Your task to perform on an android device: toggle javascript in the chrome app Image 0: 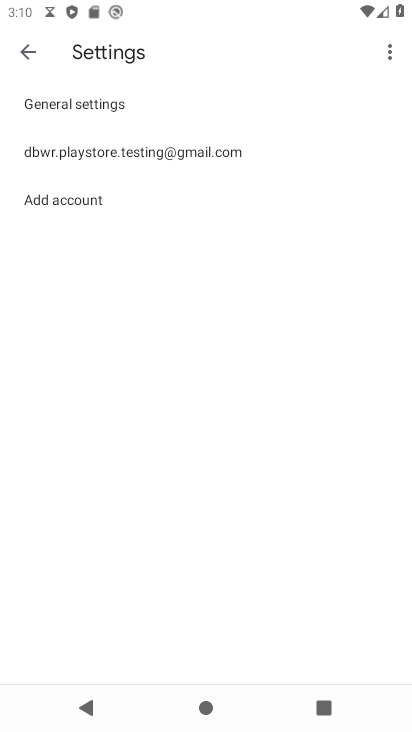
Step 0: press back button
Your task to perform on an android device: toggle javascript in the chrome app Image 1: 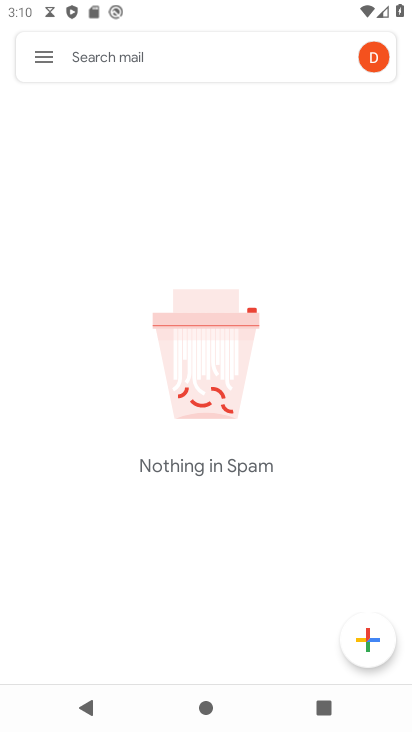
Step 1: press back button
Your task to perform on an android device: toggle javascript in the chrome app Image 2: 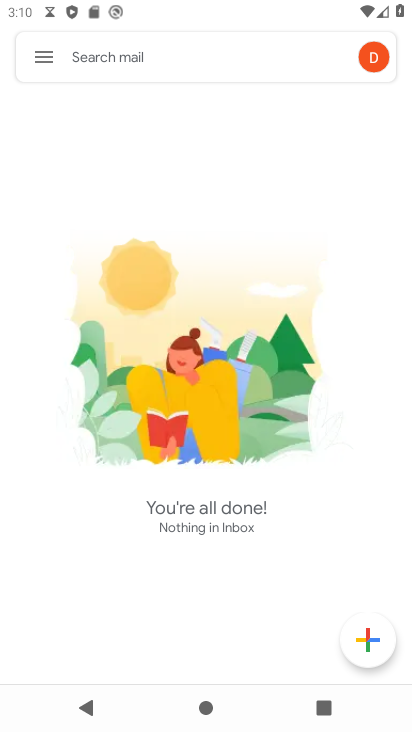
Step 2: press back button
Your task to perform on an android device: toggle javascript in the chrome app Image 3: 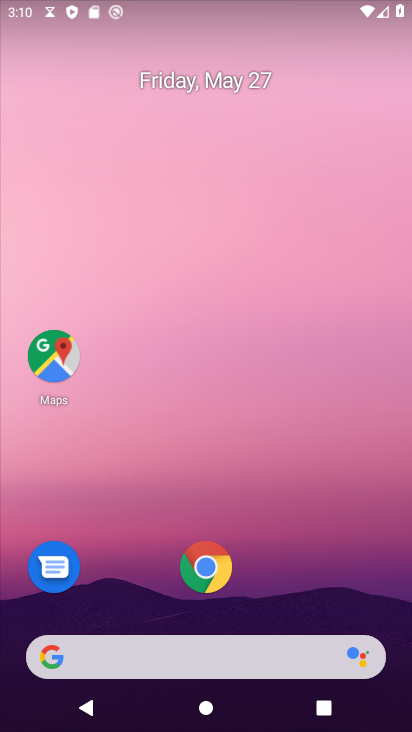
Step 3: click (206, 569)
Your task to perform on an android device: toggle javascript in the chrome app Image 4: 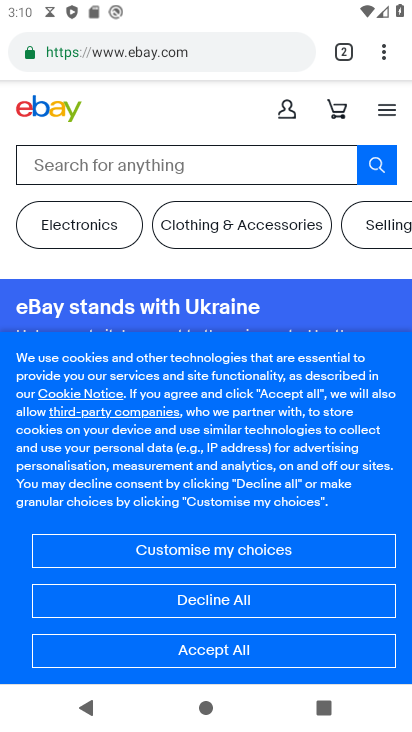
Step 4: drag from (379, 51) to (194, 618)
Your task to perform on an android device: toggle javascript in the chrome app Image 5: 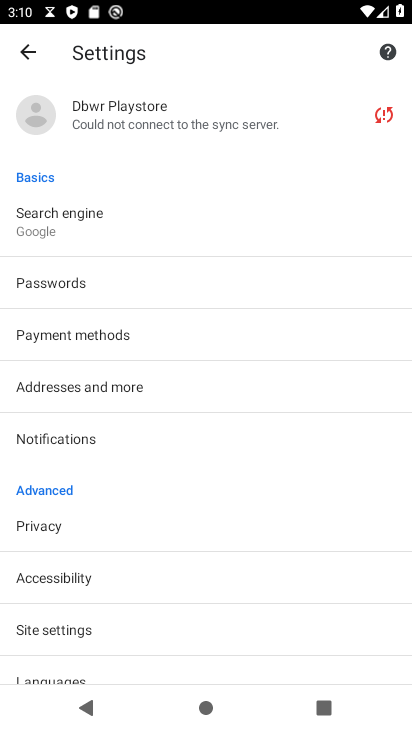
Step 5: click (96, 631)
Your task to perform on an android device: toggle javascript in the chrome app Image 6: 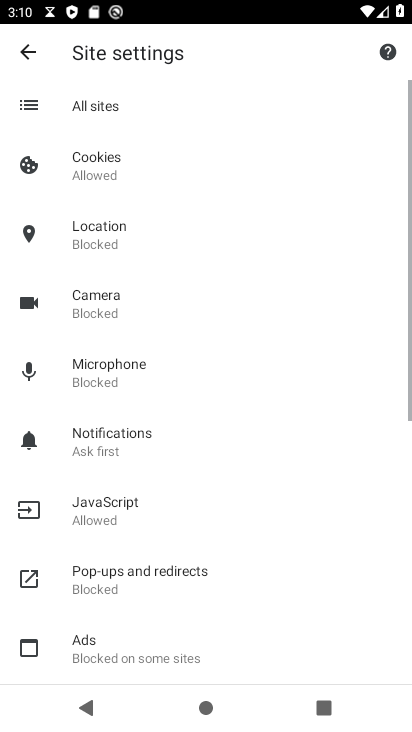
Step 6: click (116, 502)
Your task to perform on an android device: toggle javascript in the chrome app Image 7: 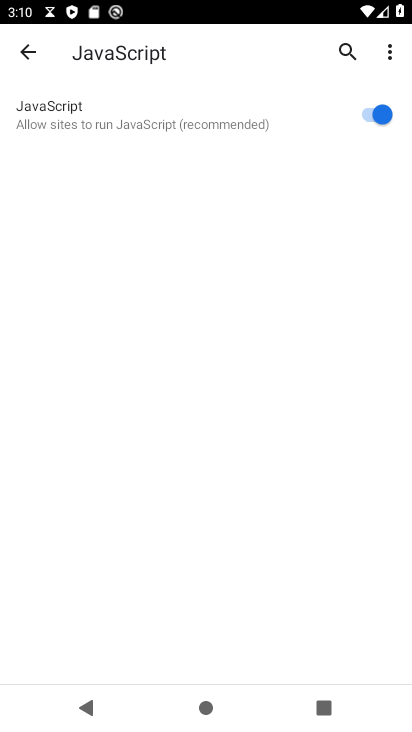
Step 7: click (377, 116)
Your task to perform on an android device: toggle javascript in the chrome app Image 8: 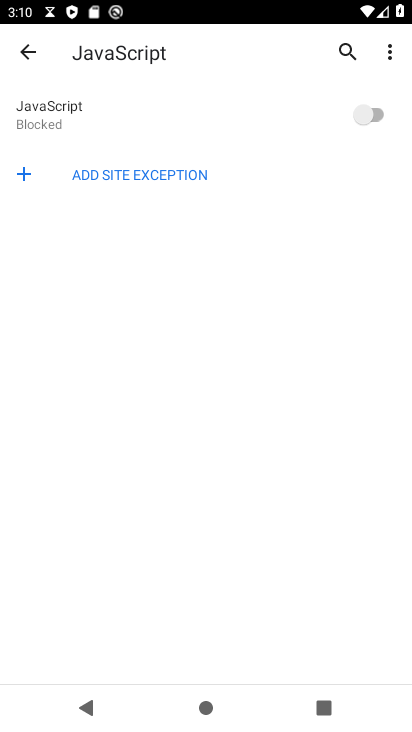
Step 8: task complete